Your task to perform on an android device: Go to Google maps Image 0: 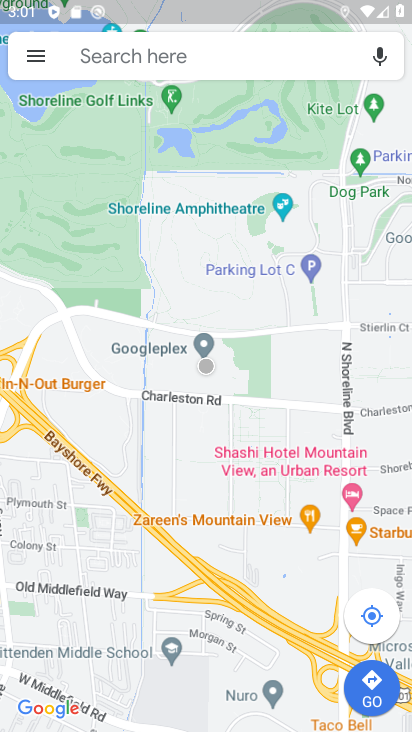
Step 0: task complete